Your task to perform on an android device: turn off translation in the chrome app Image 0: 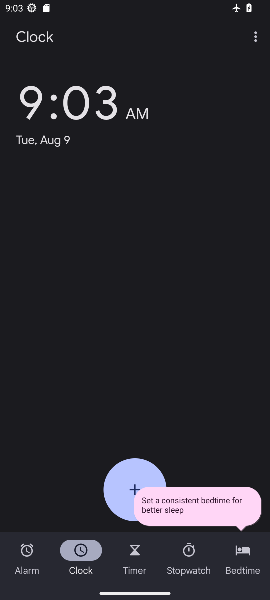
Step 0: press home button
Your task to perform on an android device: turn off translation in the chrome app Image 1: 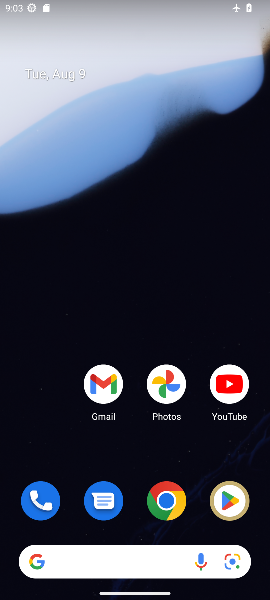
Step 1: click (167, 503)
Your task to perform on an android device: turn off translation in the chrome app Image 2: 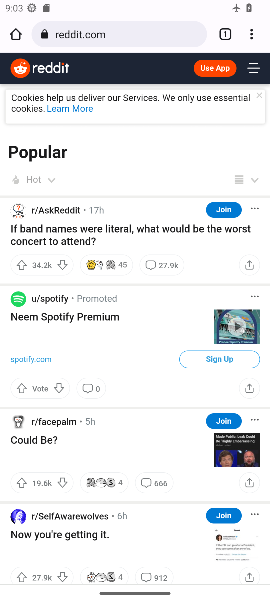
Step 2: click (250, 36)
Your task to perform on an android device: turn off translation in the chrome app Image 3: 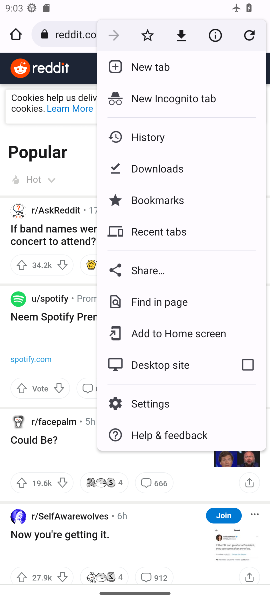
Step 3: click (146, 401)
Your task to perform on an android device: turn off translation in the chrome app Image 4: 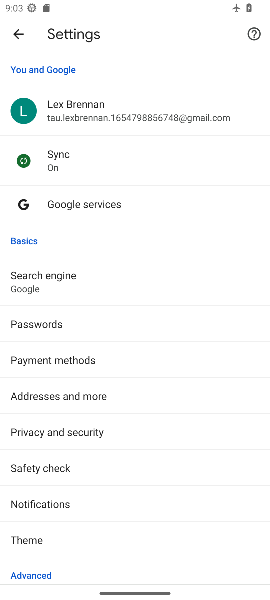
Step 4: drag from (100, 413) to (152, 222)
Your task to perform on an android device: turn off translation in the chrome app Image 5: 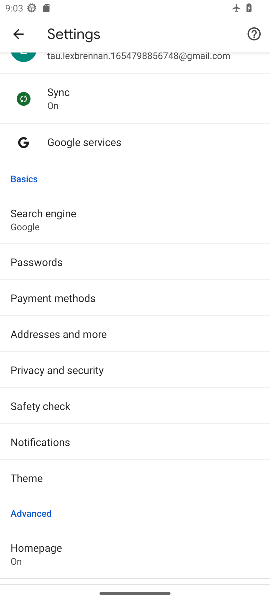
Step 5: drag from (91, 494) to (113, 345)
Your task to perform on an android device: turn off translation in the chrome app Image 6: 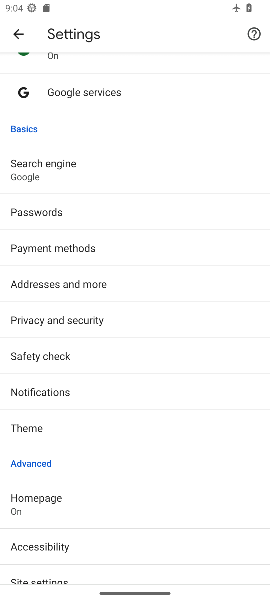
Step 6: drag from (85, 512) to (136, 191)
Your task to perform on an android device: turn off translation in the chrome app Image 7: 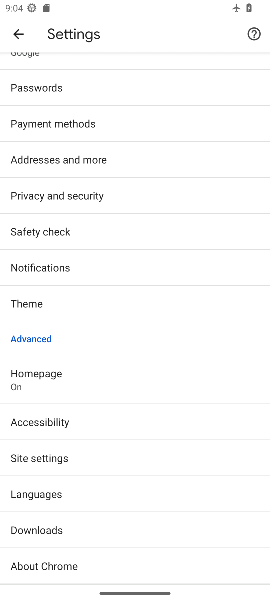
Step 7: click (56, 498)
Your task to perform on an android device: turn off translation in the chrome app Image 8: 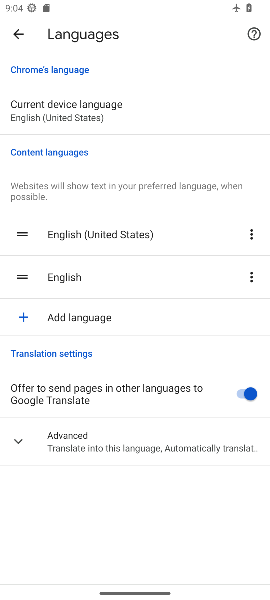
Step 8: click (244, 385)
Your task to perform on an android device: turn off translation in the chrome app Image 9: 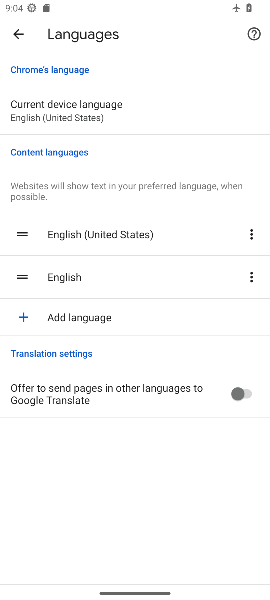
Step 9: task complete